Your task to perform on an android device: Open Reddit.com Image 0: 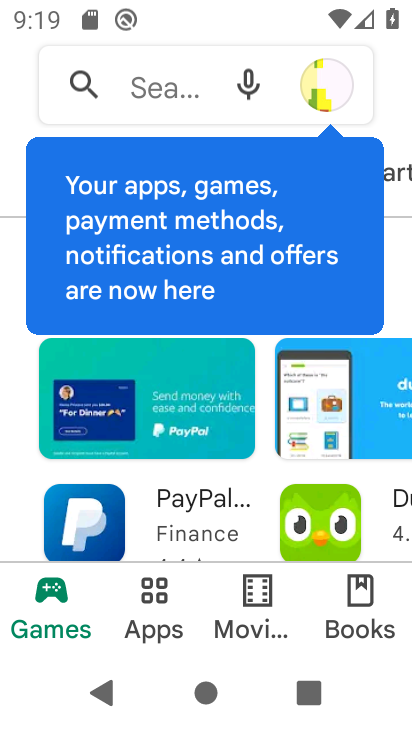
Step 0: press home button
Your task to perform on an android device: Open Reddit.com Image 1: 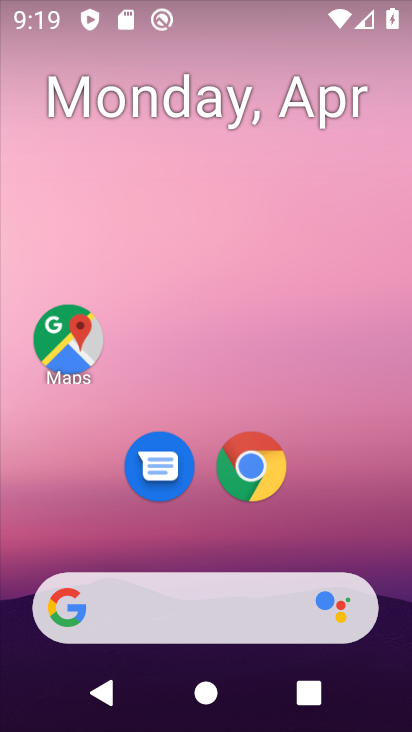
Step 1: click (248, 470)
Your task to perform on an android device: Open Reddit.com Image 2: 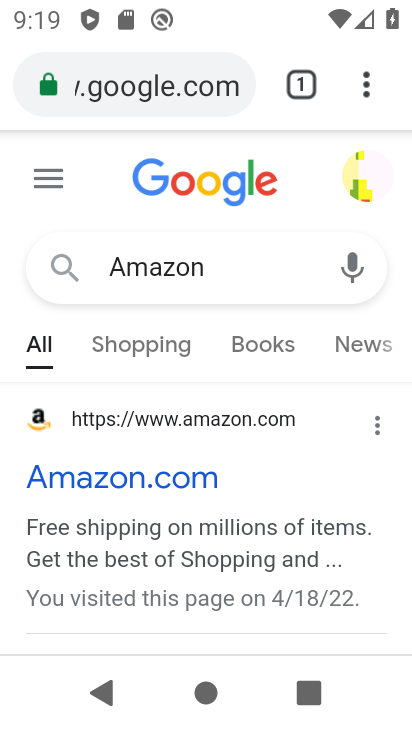
Step 2: click (210, 102)
Your task to perform on an android device: Open Reddit.com Image 3: 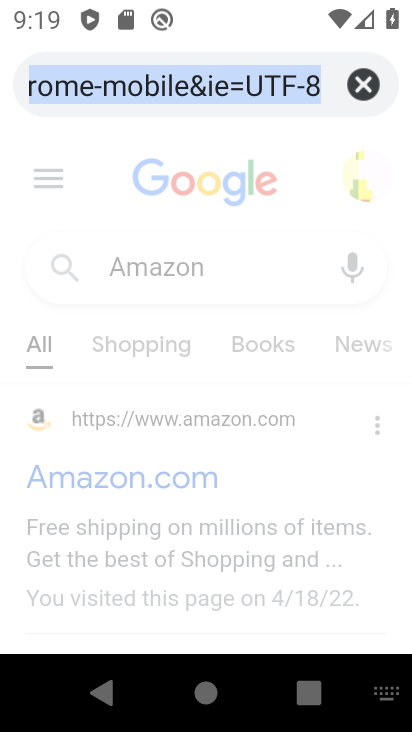
Step 3: click (371, 81)
Your task to perform on an android device: Open Reddit.com Image 4: 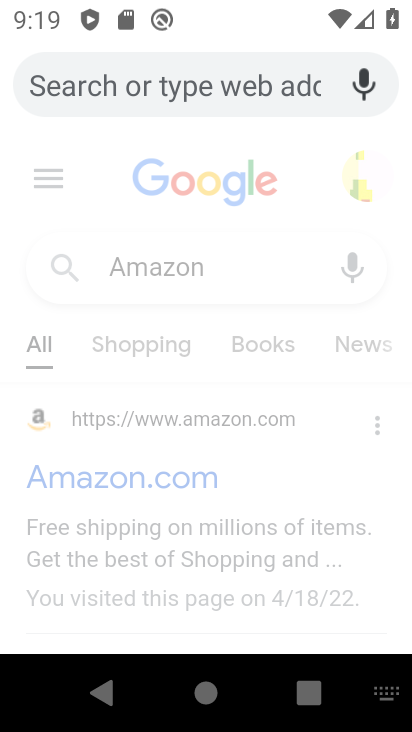
Step 4: type "Reddit.com"
Your task to perform on an android device: Open Reddit.com Image 5: 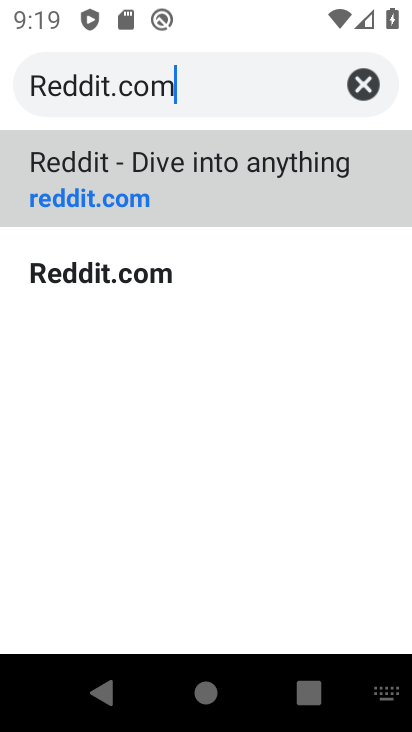
Step 5: click (151, 275)
Your task to perform on an android device: Open Reddit.com Image 6: 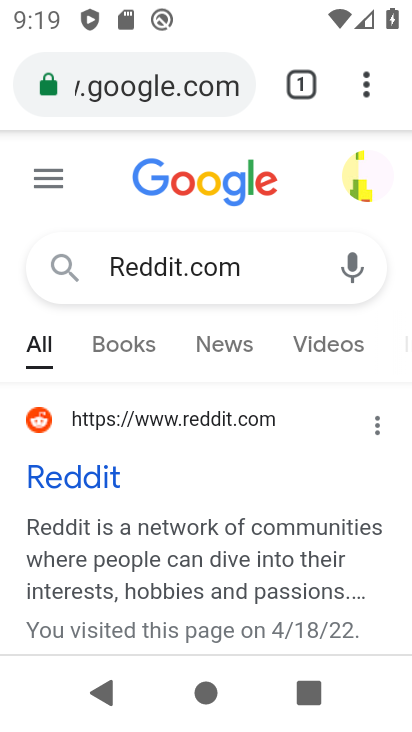
Step 6: task complete